Your task to perform on an android device: turn off data saver in the chrome app Image 0: 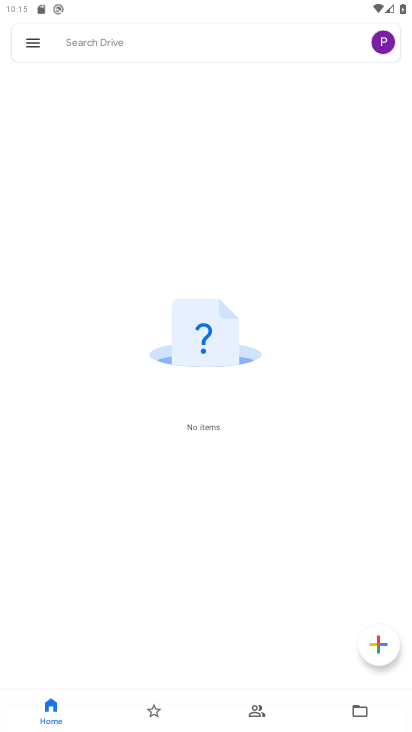
Step 0: press home button
Your task to perform on an android device: turn off data saver in the chrome app Image 1: 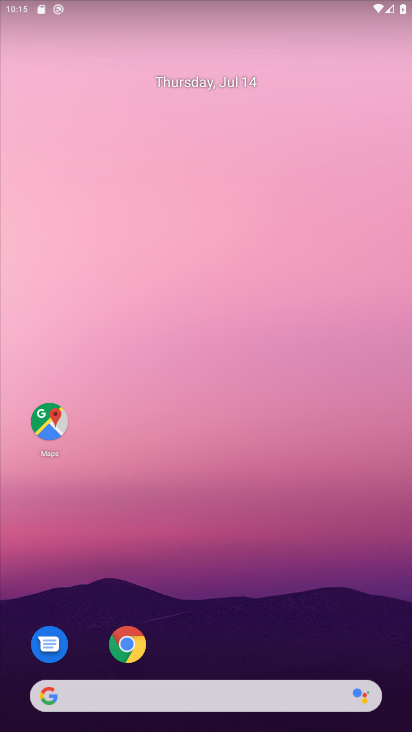
Step 1: click (133, 649)
Your task to perform on an android device: turn off data saver in the chrome app Image 2: 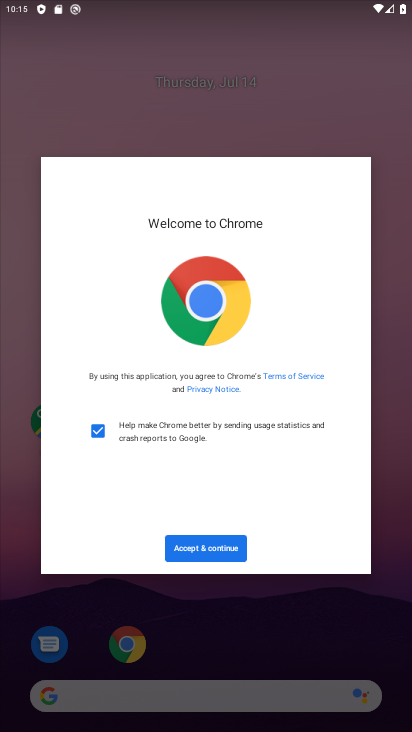
Step 2: click (208, 548)
Your task to perform on an android device: turn off data saver in the chrome app Image 3: 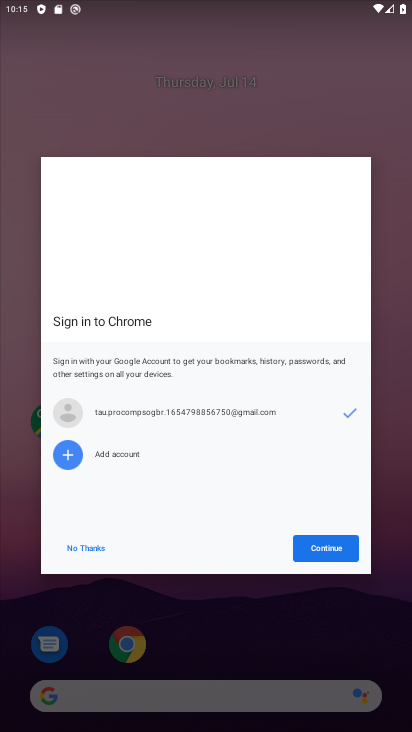
Step 3: click (320, 551)
Your task to perform on an android device: turn off data saver in the chrome app Image 4: 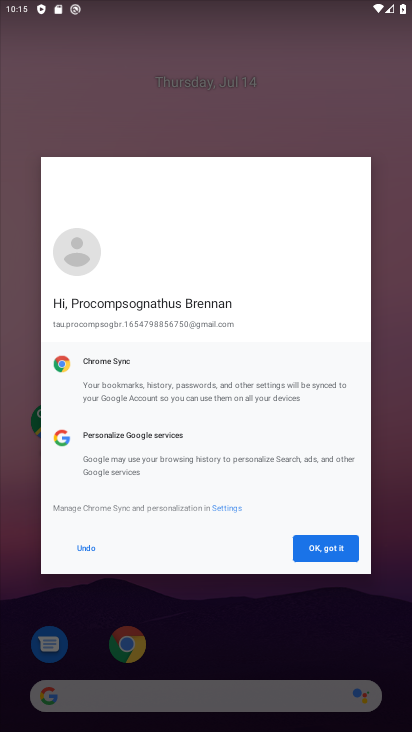
Step 4: click (320, 551)
Your task to perform on an android device: turn off data saver in the chrome app Image 5: 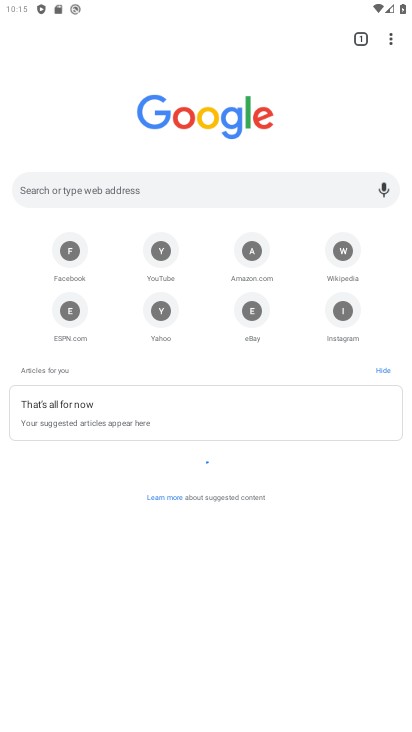
Step 5: drag from (396, 37) to (259, 327)
Your task to perform on an android device: turn off data saver in the chrome app Image 6: 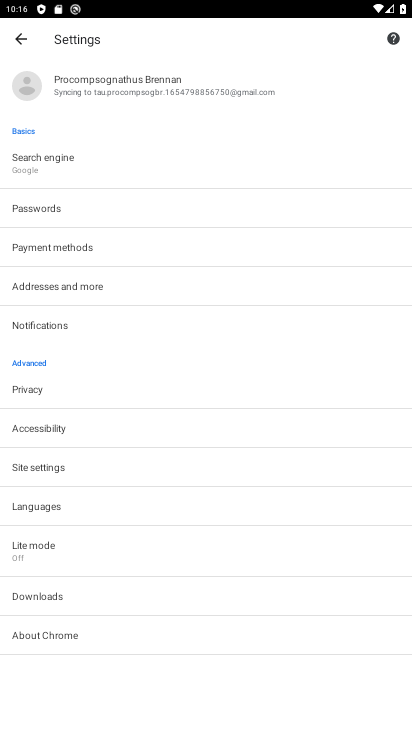
Step 6: click (90, 540)
Your task to perform on an android device: turn off data saver in the chrome app Image 7: 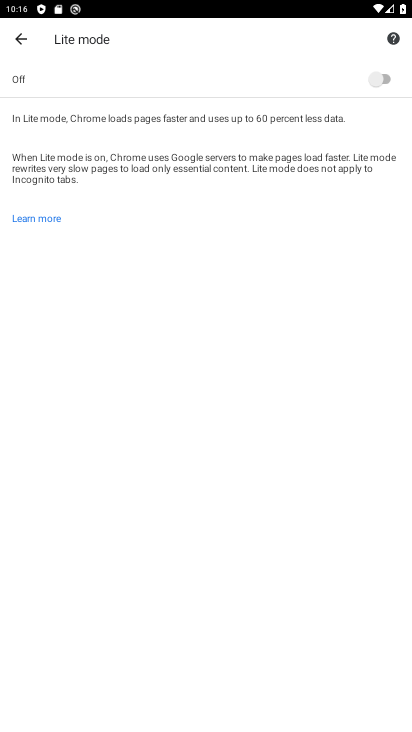
Step 7: task complete